Your task to perform on an android device: open a new tab in the chrome app Image 0: 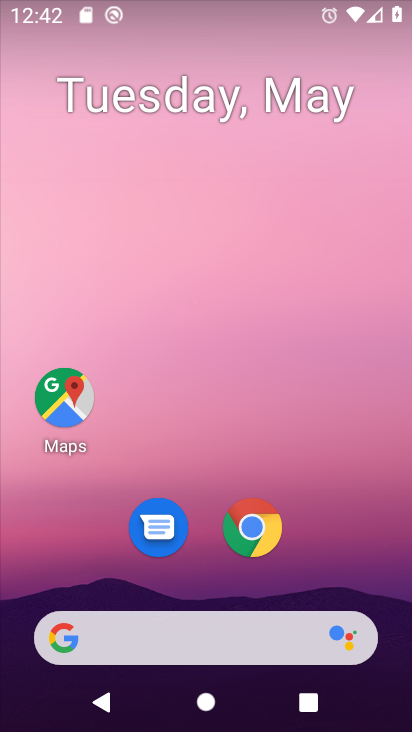
Step 0: click (266, 540)
Your task to perform on an android device: open a new tab in the chrome app Image 1: 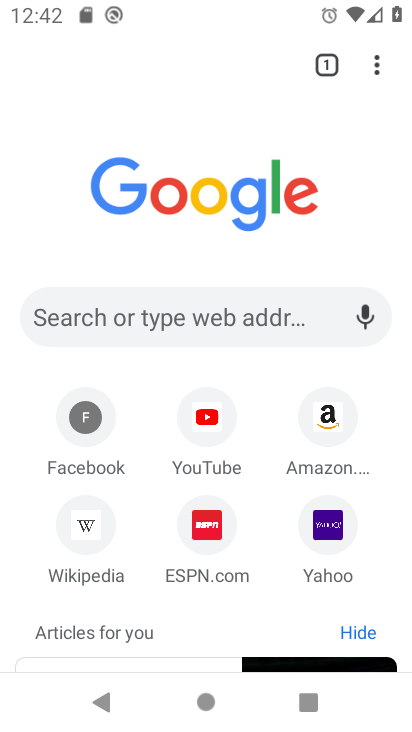
Step 1: click (379, 68)
Your task to perform on an android device: open a new tab in the chrome app Image 2: 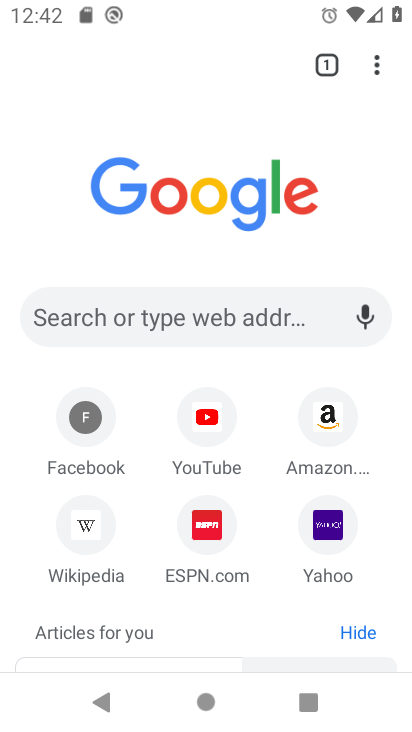
Step 2: click (196, 129)
Your task to perform on an android device: open a new tab in the chrome app Image 3: 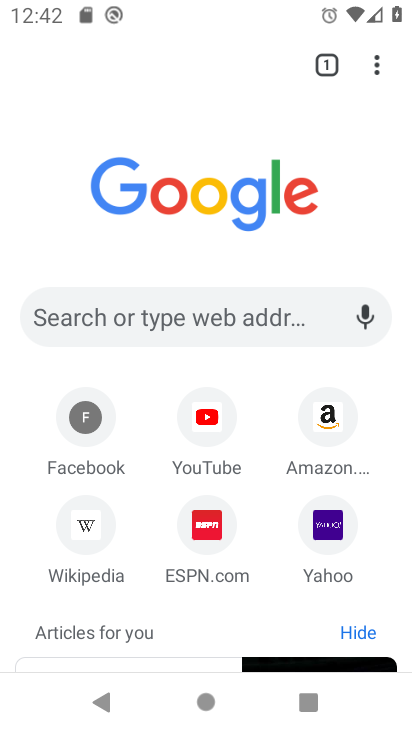
Step 3: click (376, 58)
Your task to perform on an android device: open a new tab in the chrome app Image 4: 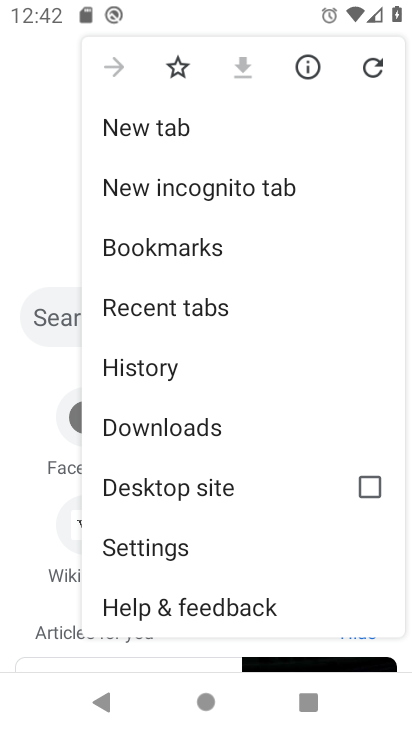
Step 4: click (163, 127)
Your task to perform on an android device: open a new tab in the chrome app Image 5: 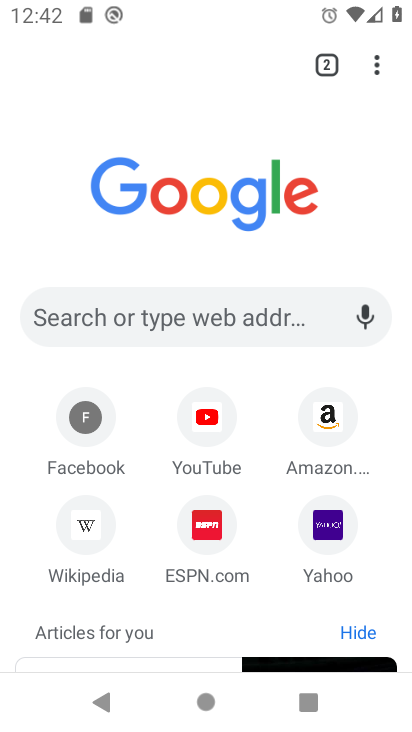
Step 5: task complete